Your task to perform on an android device: stop showing notifications on the lock screen Image 0: 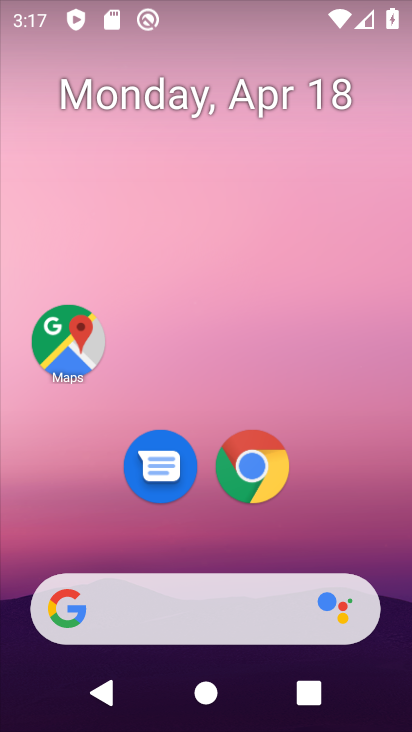
Step 0: drag from (366, 535) to (316, 158)
Your task to perform on an android device: stop showing notifications on the lock screen Image 1: 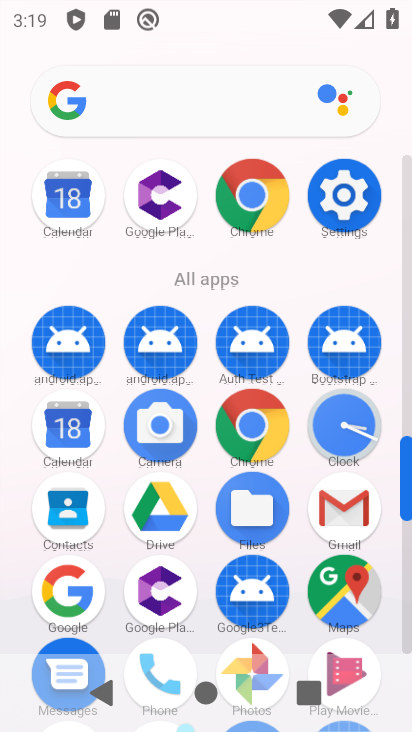
Step 1: click (356, 216)
Your task to perform on an android device: stop showing notifications on the lock screen Image 2: 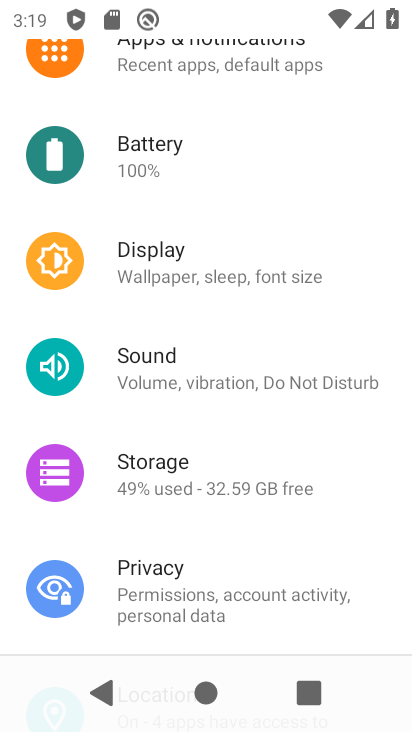
Step 2: click (261, 76)
Your task to perform on an android device: stop showing notifications on the lock screen Image 3: 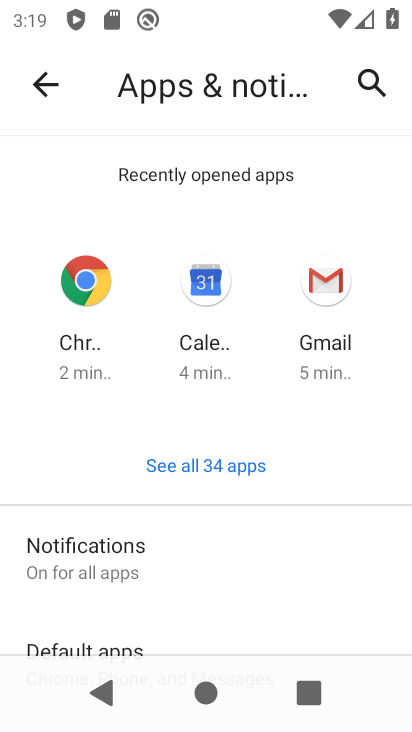
Step 3: drag from (207, 517) to (225, 244)
Your task to perform on an android device: stop showing notifications on the lock screen Image 4: 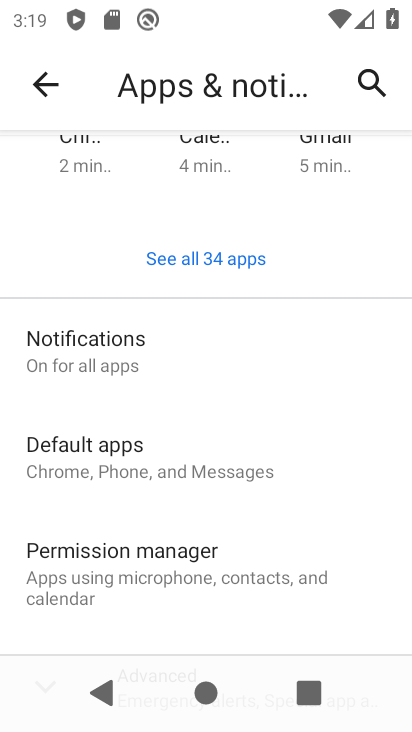
Step 4: drag from (229, 557) to (262, 212)
Your task to perform on an android device: stop showing notifications on the lock screen Image 5: 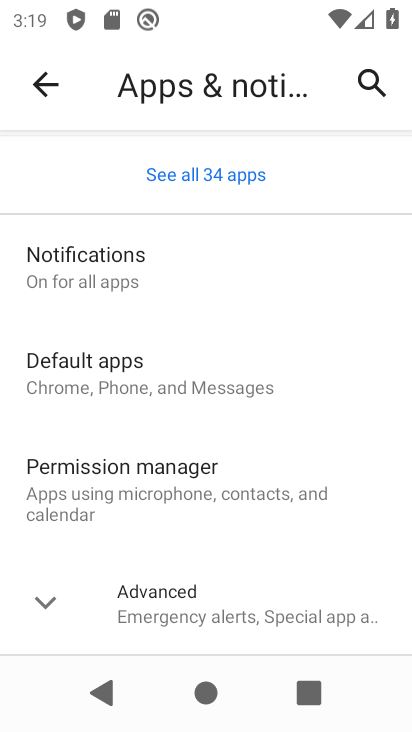
Step 5: click (218, 580)
Your task to perform on an android device: stop showing notifications on the lock screen Image 6: 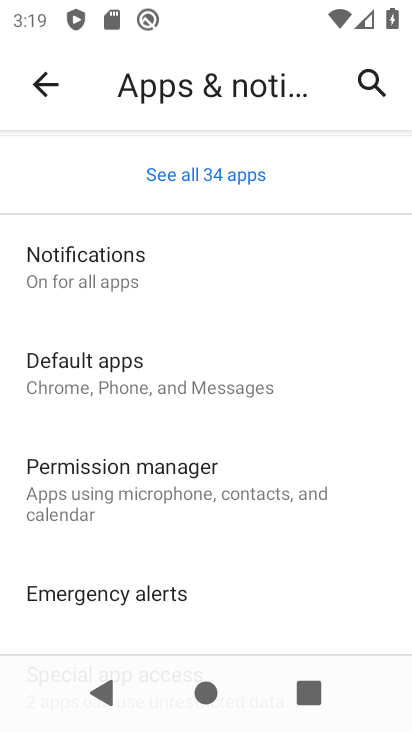
Step 6: drag from (201, 549) to (271, 272)
Your task to perform on an android device: stop showing notifications on the lock screen Image 7: 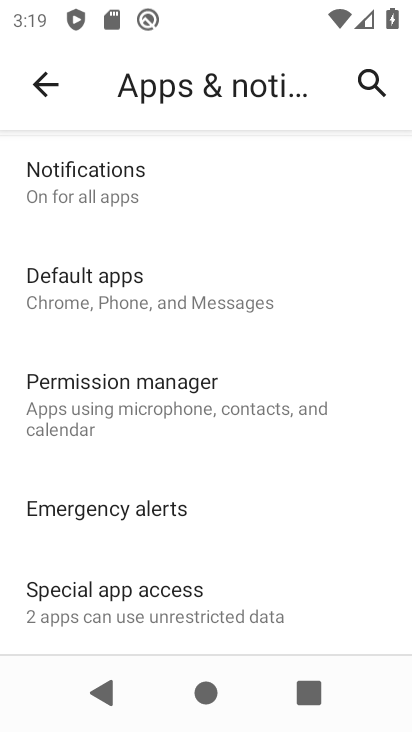
Step 7: click (142, 174)
Your task to perform on an android device: stop showing notifications on the lock screen Image 8: 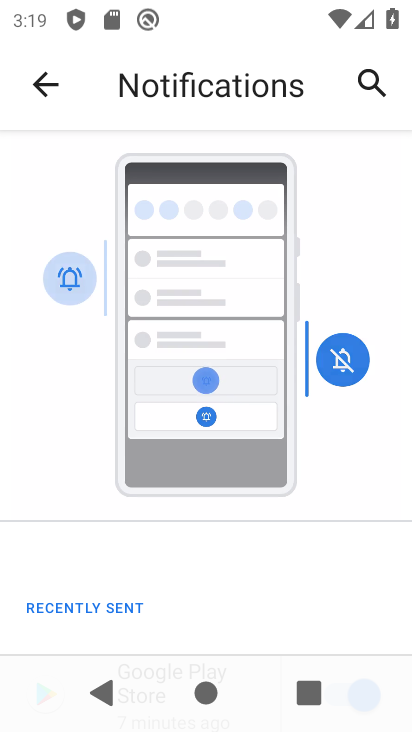
Step 8: drag from (55, 550) to (99, 284)
Your task to perform on an android device: stop showing notifications on the lock screen Image 9: 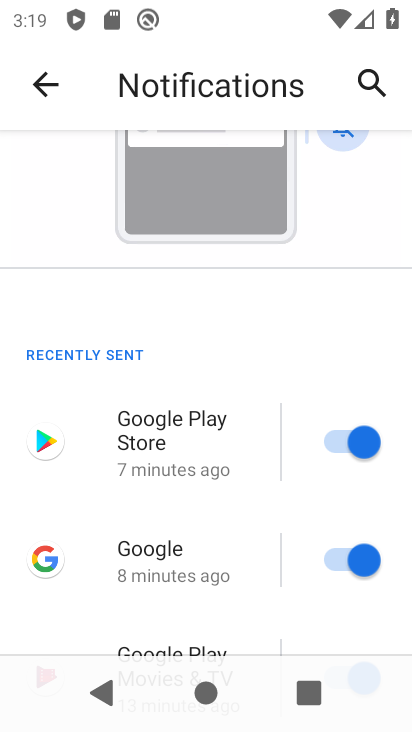
Step 9: drag from (141, 608) to (180, 203)
Your task to perform on an android device: stop showing notifications on the lock screen Image 10: 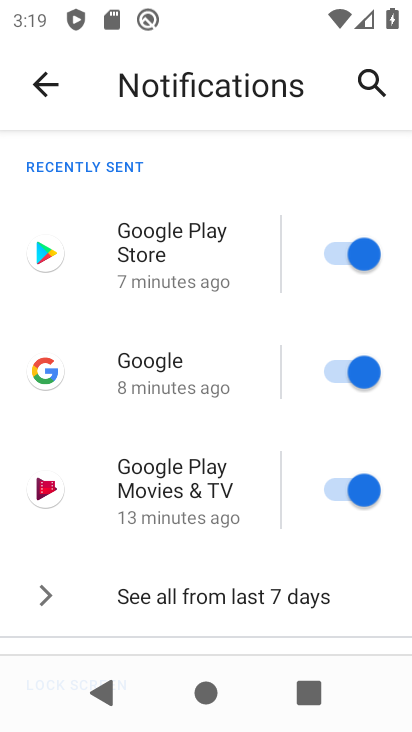
Step 10: drag from (222, 548) to (242, 199)
Your task to perform on an android device: stop showing notifications on the lock screen Image 11: 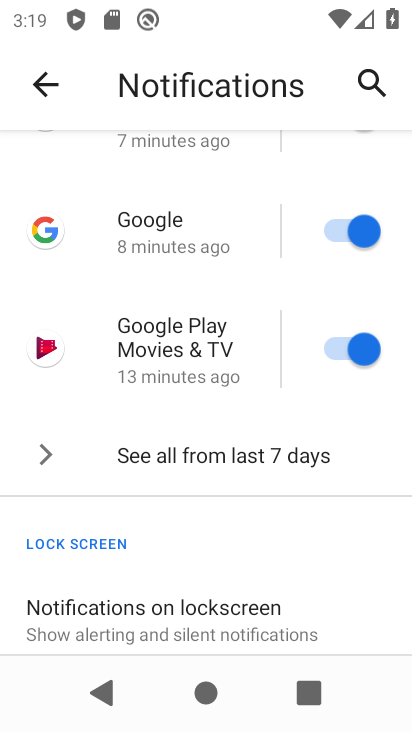
Step 11: drag from (221, 582) to (221, 256)
Your task to perform on an android device: stop showing notifications on the lock screen Image 12: 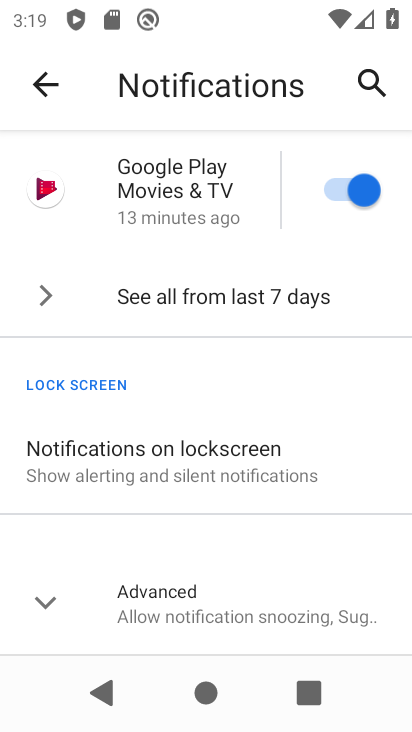
Step 12: click (195, 469)
Your task to perform on an android device: stop showing notifications on the lock screen Image 13: 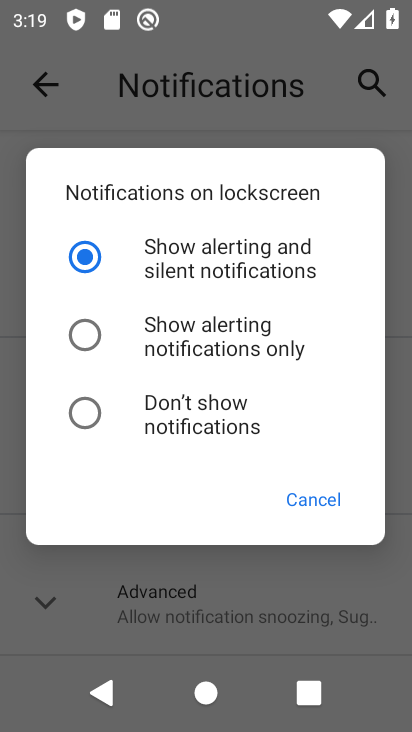
Step 13: click (215, 412)
Your task to perform on an android device: stop showing notifications on the lock screen Image 14: 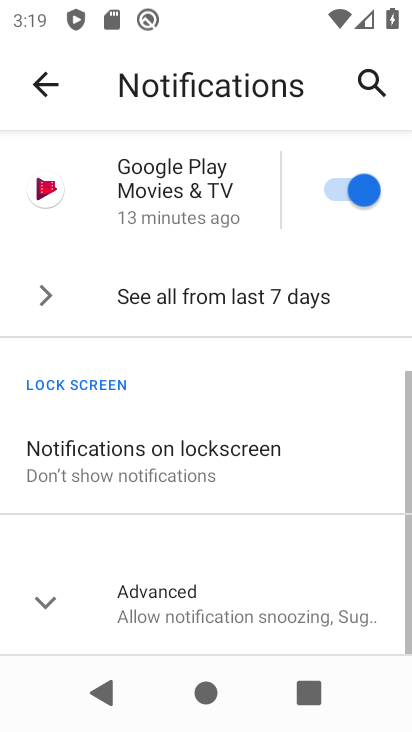
Step 14: task complete